Your task to perform on an android device: Clear the shopping cart on amazon.com. Add "macbook air" to the cart on amazon.com Image 0: 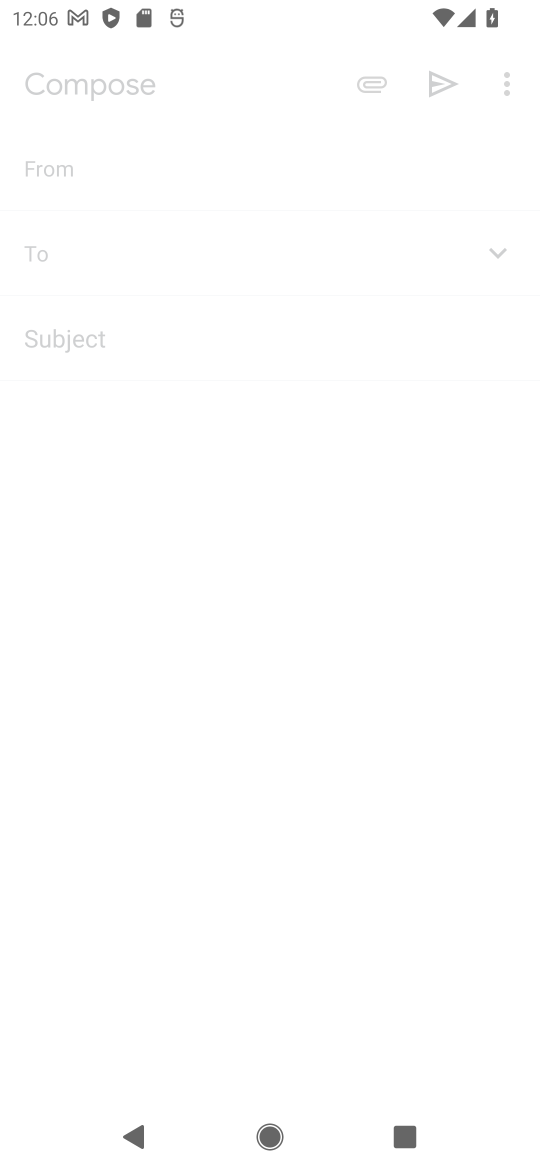
Step 0: press home button
Your task to perform on an android device: Clear the shopping cart on amazon.com. Add "macbook air" to the cart on amazon.com Image 1: 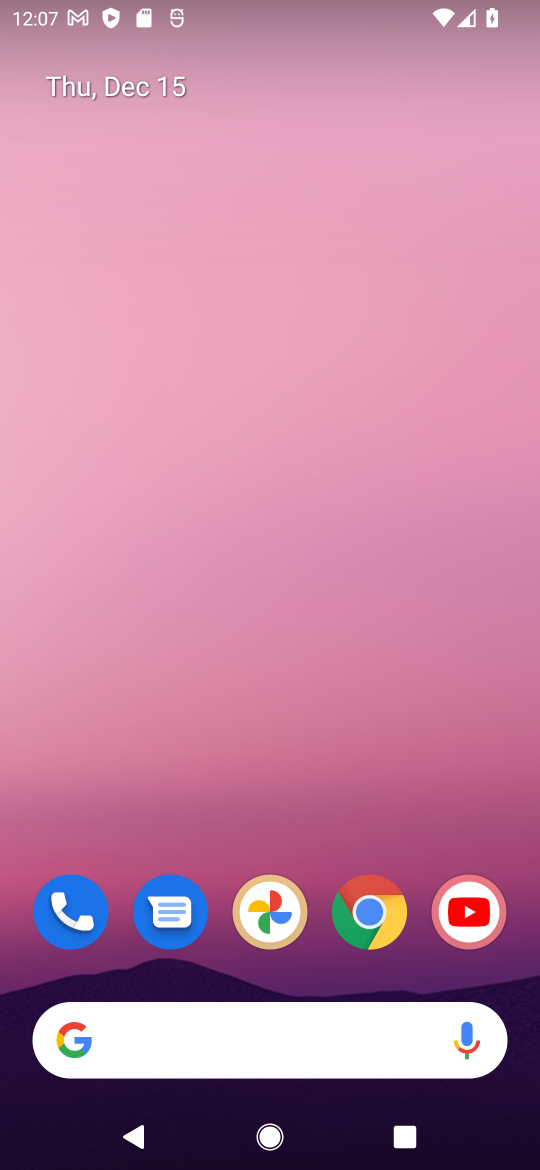
Step 1: drag from (236, 1029) to (237, 56)
Your task to perform on an android device: Clear the shopping cart on amazon.com. Add "macbook air" to the cart on amazon.com Image 2: 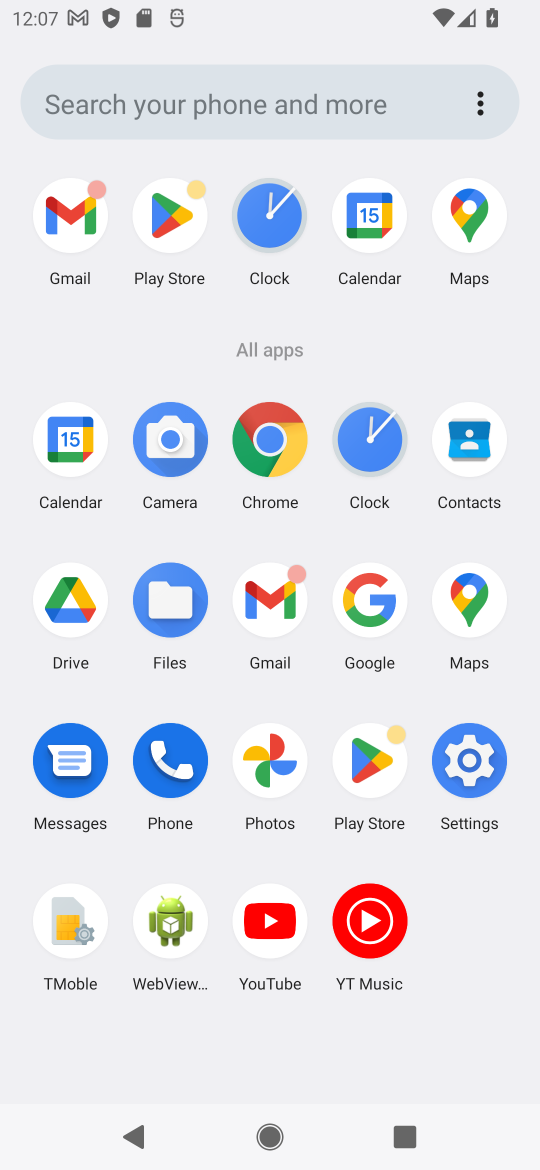
Step 2: click (361, 603)
Your task to perform on an android device: Clear the shopping cart on amazon.com. Add "macbook air" to the cart on amazon.com Image 3: 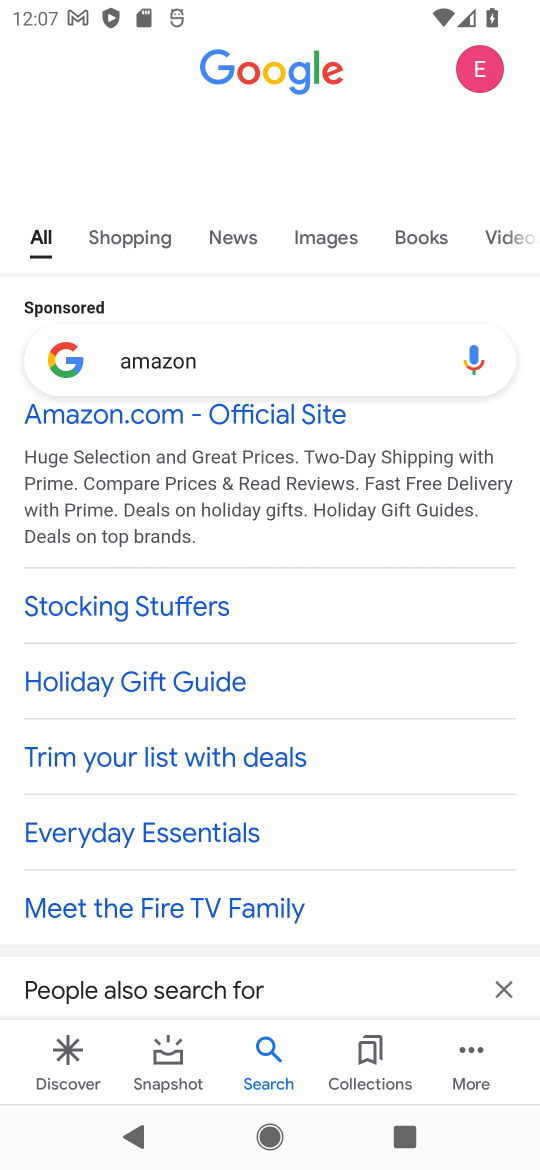
Step 3: click (165, 344)
Your task to perform on an android device: Clear the shopping cart on amazon.com. Add "macbook air" to the cart on amazon.com Image 4: 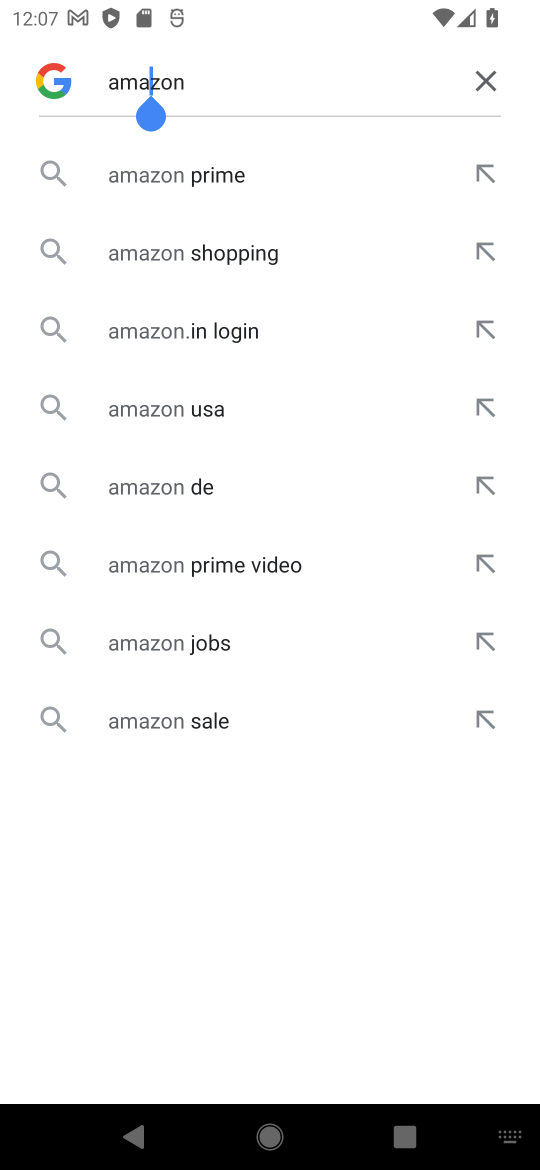
Step 4: click (488, 85)
Your task to perform on an android device: Clear the shopping cart on amazon.com. Add "macbook air" to the cart on amazon.com Image 5: 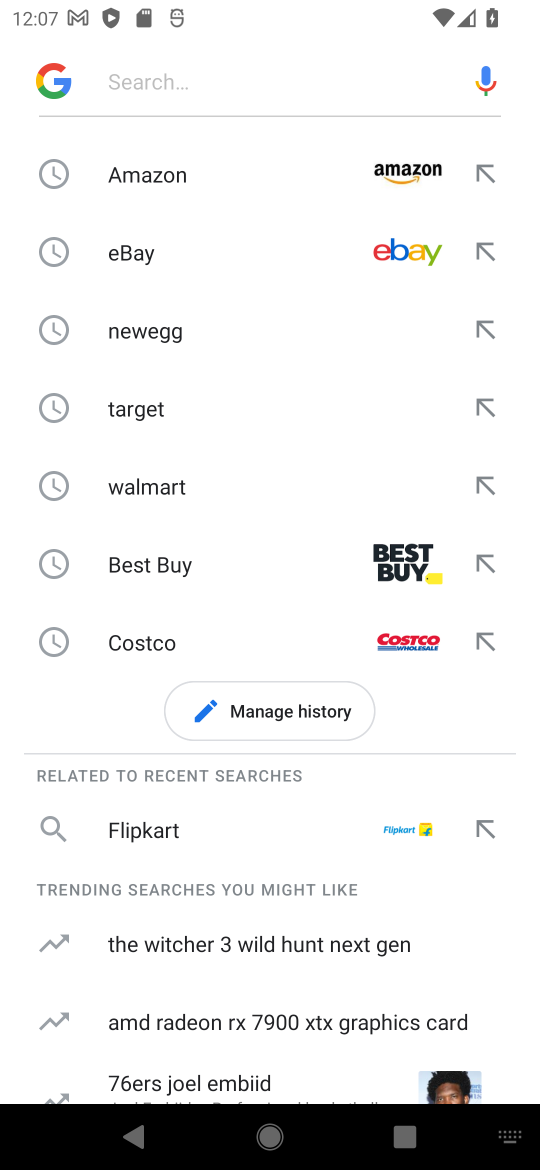
Step 5: click (148, 166)
Your task to perform on an android device: Clear the shopping cart on amazon.com. Add "macbook air" to the cart on amazon.com Image 6: 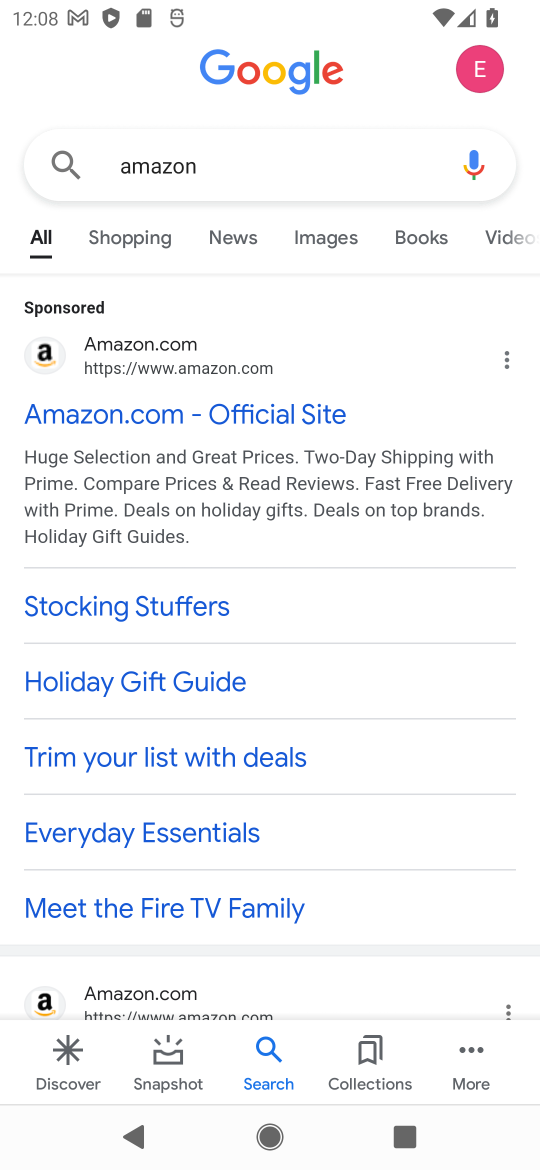
Step 6: click (108, 419)
Your task to perform on an android device: Clear the shopping cart on amazon.com. Add "macbook air" to the cart on amazon.com Image 7: 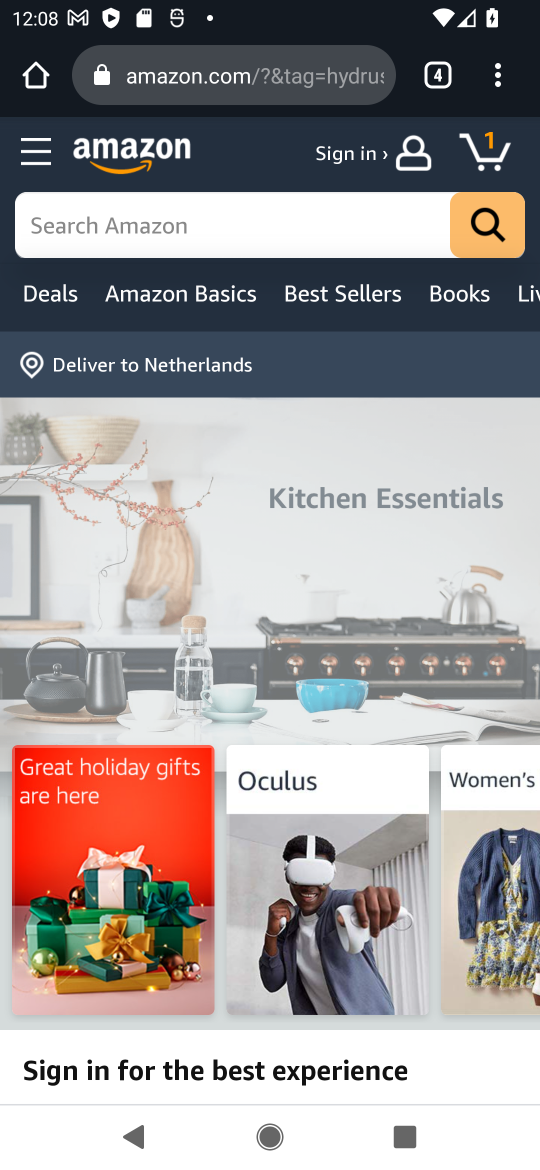
Step 7: click (495, 146)
Your task to perform on an android device: Clear the shopping cart on amazon.com. Add "macbook air" to the cart on amazon.com Image 8: 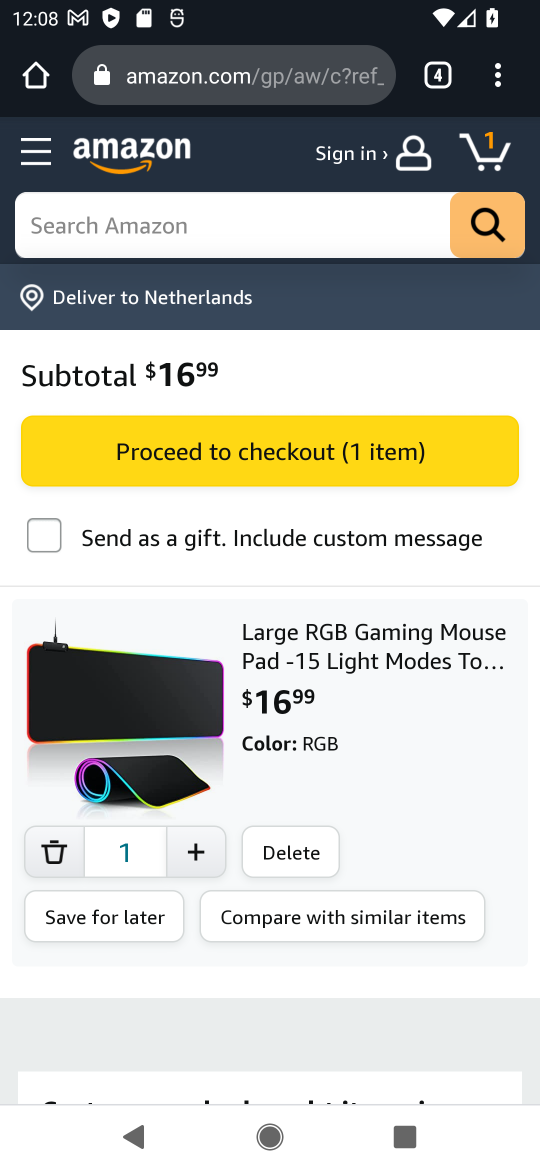
Step 8: click (50, 858)
Your task to perform on an android device: Clear the shopping cart on amazon.com. Add "macbook air" to the cart on amazon.com Image 9: 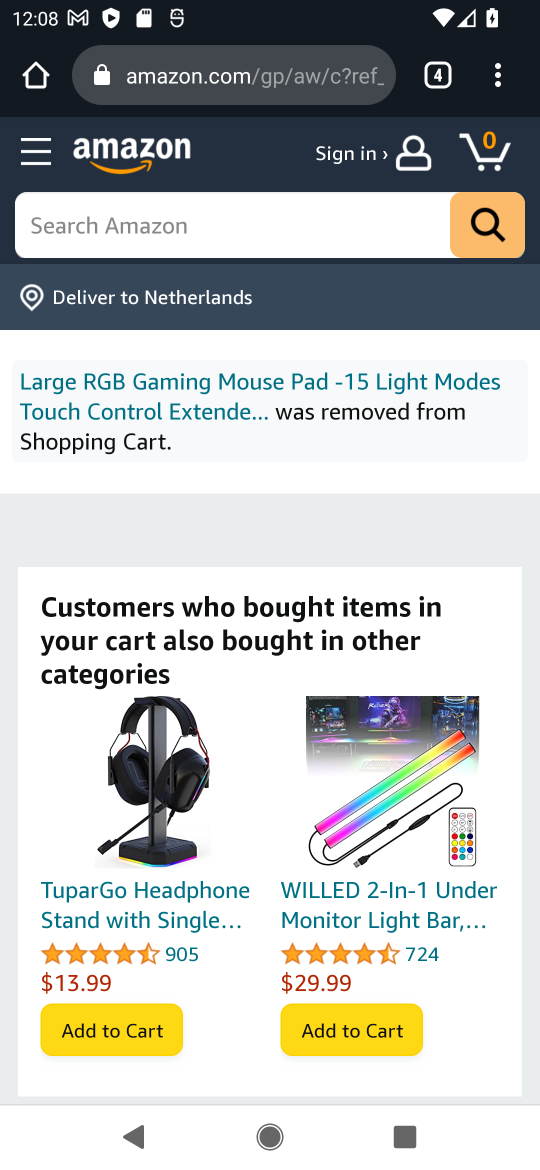
Step 9: click (100, 212)
Your task to perform on an android device: Clear the shopping cart on amazon.com. Add "macbook air" to the cart on amazon.com Image 10: 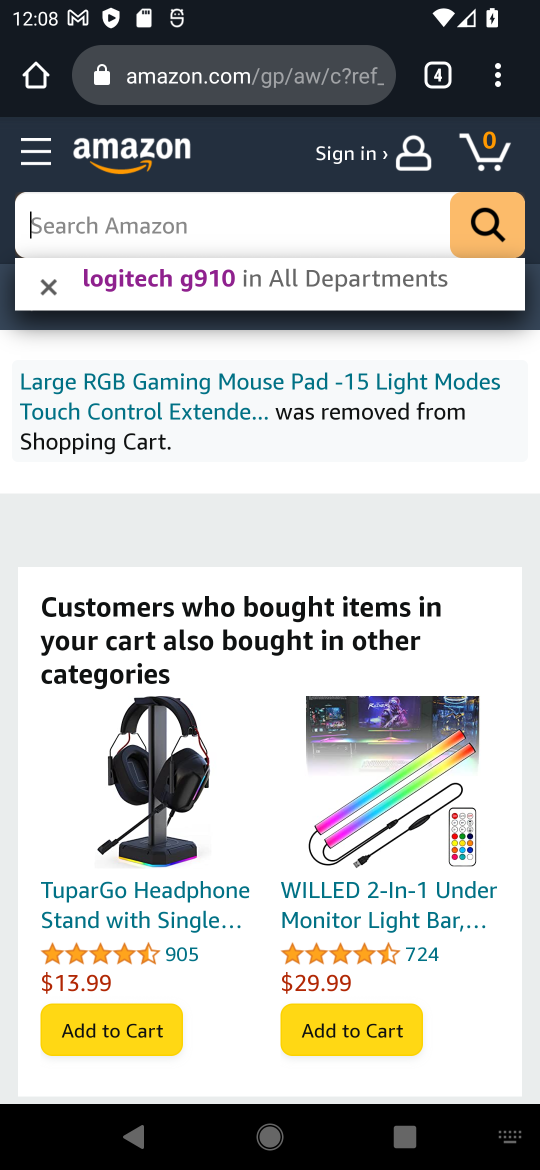
Step 10: type "macbook air"
Your task to perform on an android device: Clear the shopping cart on amazon.com. Add "macbook air" to the cart on amazon.com Image 11: 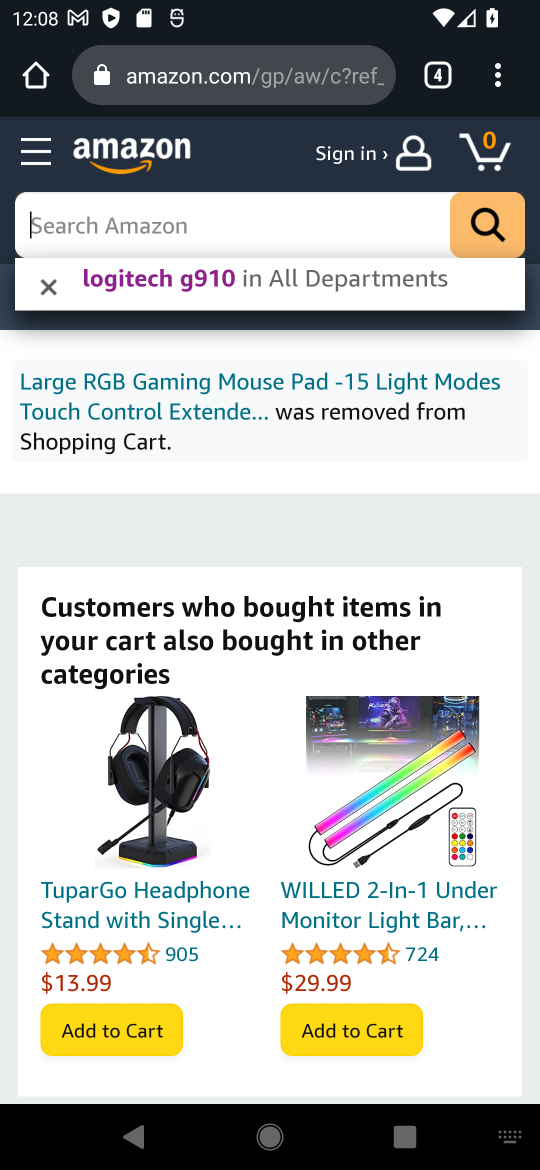
Step 11: click (470, 225)
Your task to perform on an android device: Clear the shopping cart on amazon.com. Add "macbook air" to the cart on amazon.com Image 12: 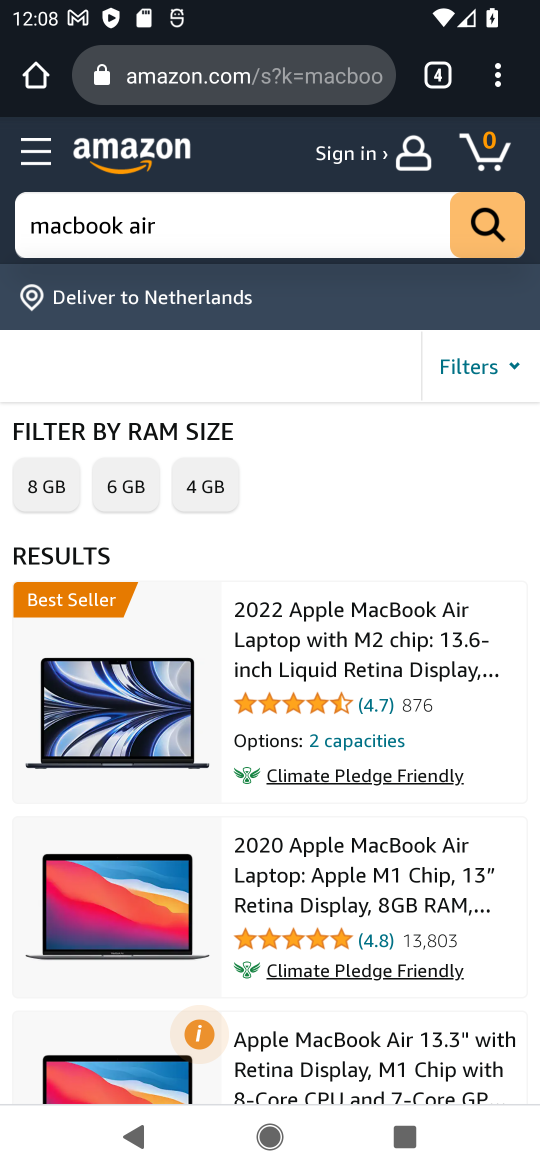
Step 12: click (284, 642)
Your task to perform on an android device: Clear the shopping cart on amazon.com. Add "macbook air" to the cart on amazon.com Image 13: 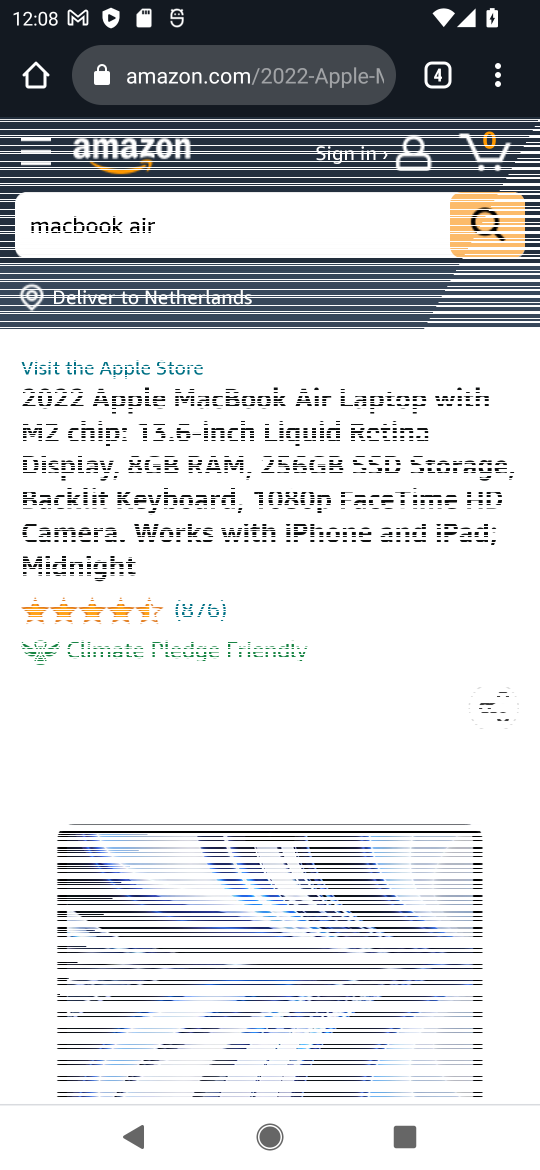
Step 13: task complete